Your task to perform on an android device: Open settings on Google Maps Image 0: 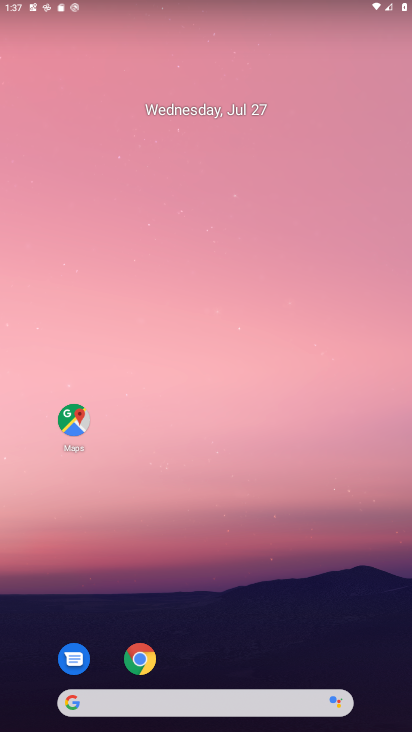
Step 0: click (73, 424)
Your task to perform on an android device: Open settings on Google Maps Image 1: 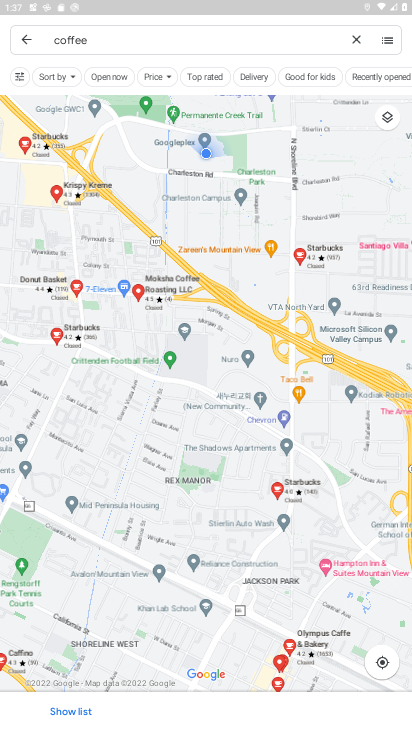
Step 1: click (21, 38)
Your task to perform on an android device: Open settings on Google Maps Image 2: 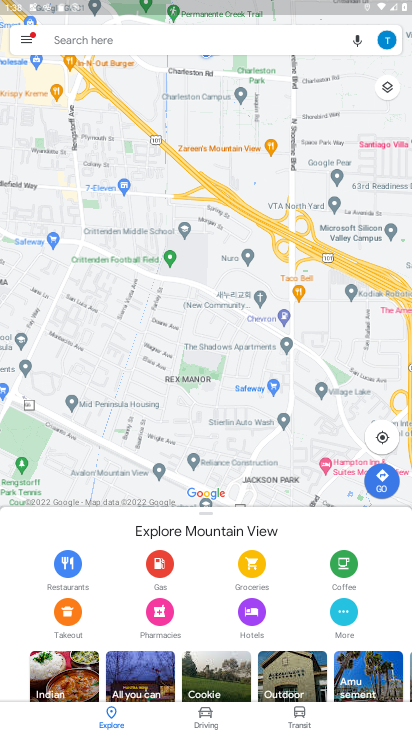
Step 2: click (34, 39)
Your task to perform on an android device: Open settings on Google Maps Image 3: 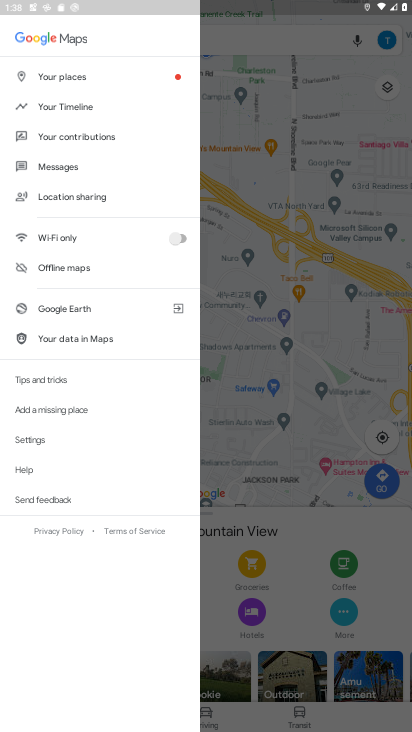
Step 3: click (45, 440)
Your task to perform on an android device: Open settings on Google Maps Image 4: 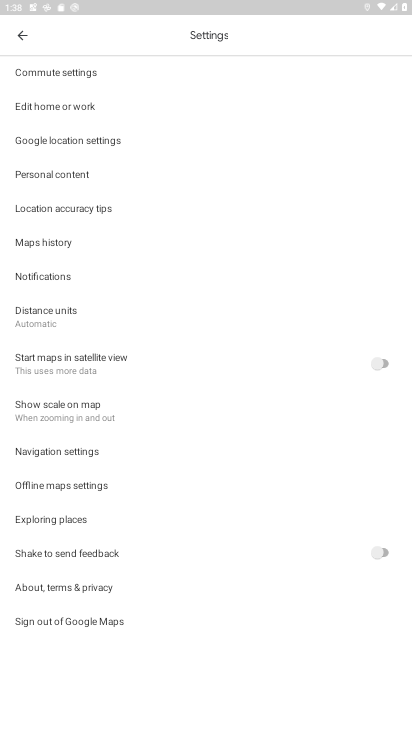
Step 4: task complete